Your task to perform on an android device: turn on the 12-hour format for clock Image 0: 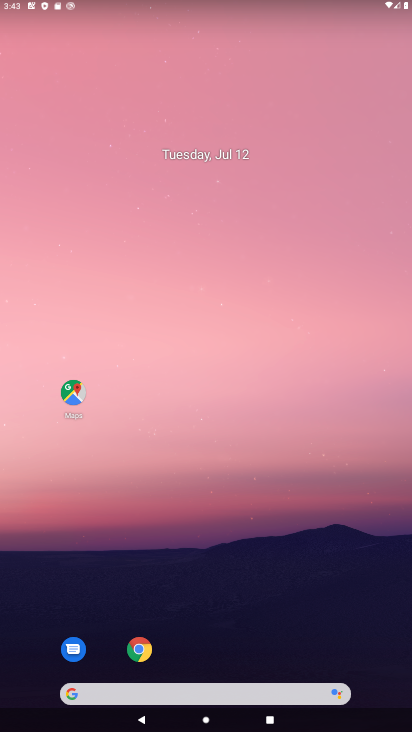
Step 0: press home button
Your task to perform on an android device: turn on the 12-hour format for clock Image 1: 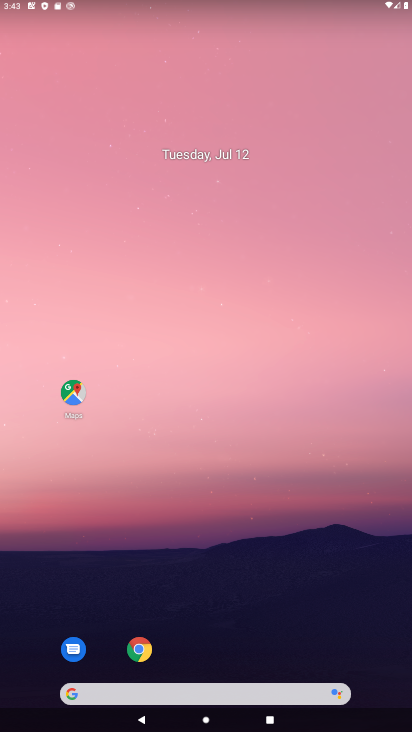
Step 1: drag from (204, 657) to (233, 55)
Your task to perform on an android device: turn on the 12-hour format for clock Image 2: 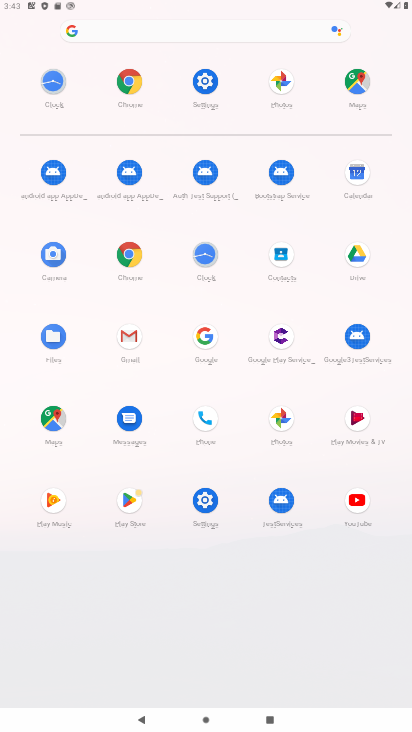
Step 2: click (206, 253)
Your task to perform on an android device: turn on the 12-hour format for clock Image 3: 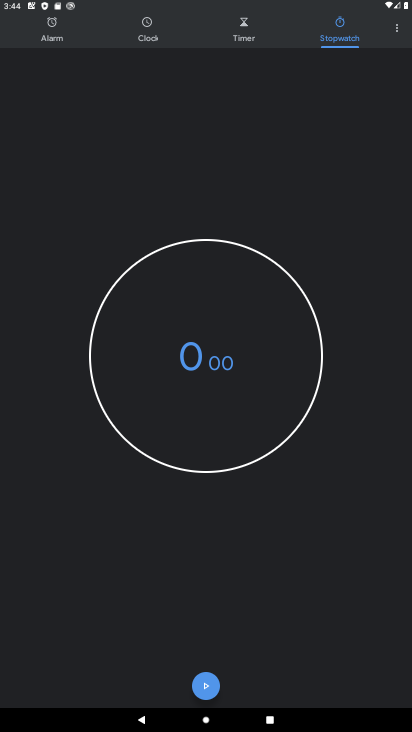
Step 3: click (392, 30)
Your task to perform on an android device: turn on the 12-hour format for clock Image 4: 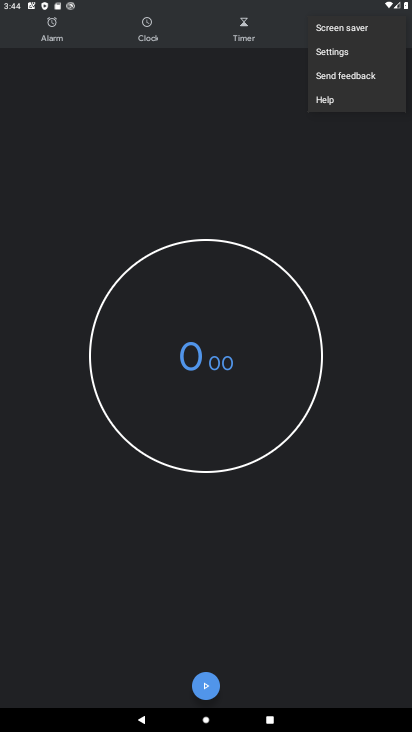
Step 4: click (353, 52)
Your task to perform on an android device: turn on the 12-hour format for clock Image 5: 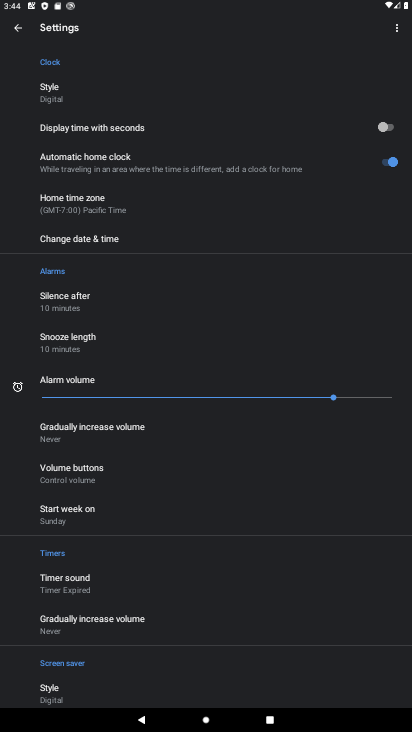
Step 5: click (140, 239)
Your task to perform on an android device: turn on the 12-hour format for clock Image 6: 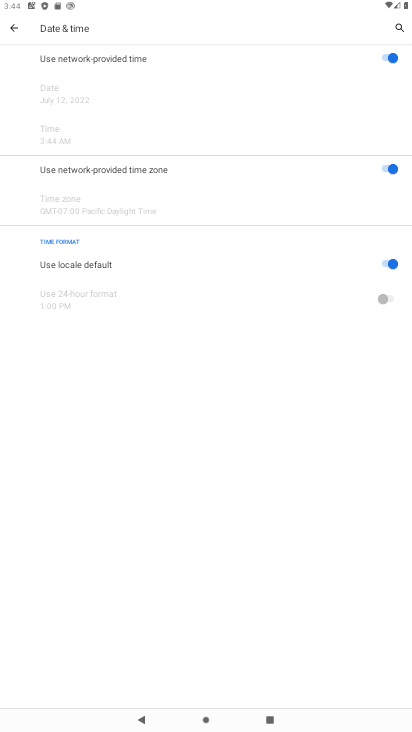
Step 6: task complete